Your task to perform on an android device: change the clock display to analog Image 0: 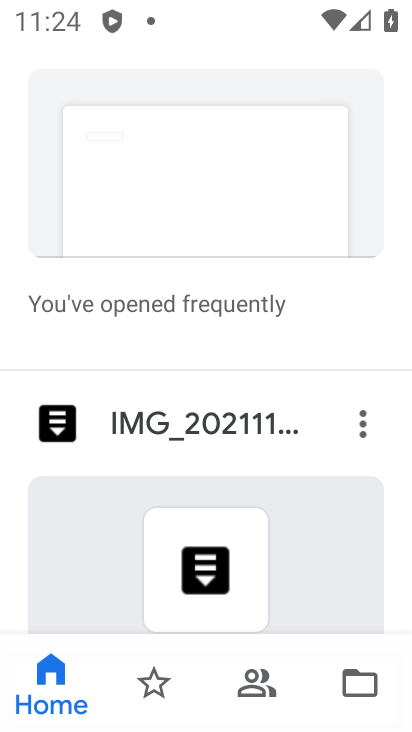
Step 0: press home button
Your task to perform on an android device: change the clock display to analog Image 1: 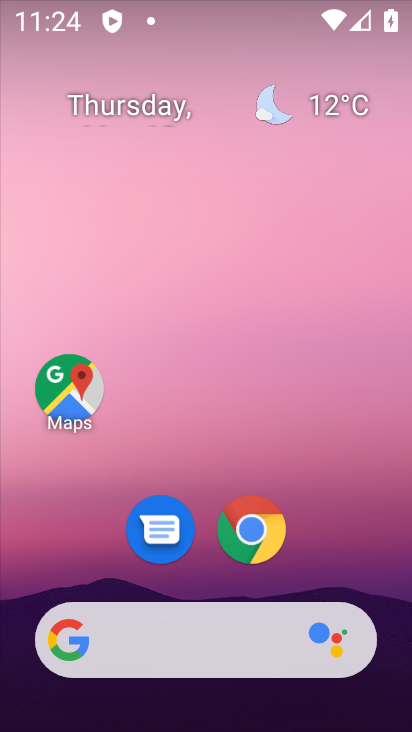
Step 1: drag from (328, 501) to (324, 287)
Your task to perform on an android device: change the clock display to analog Image 2: 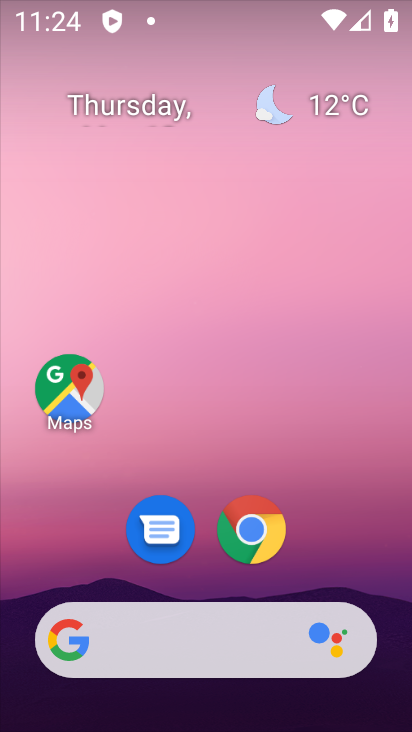
Step 2: drag from (329, 527) to (316, 245)
Your task to perform on an android device: change the clock display to analog Image 3: 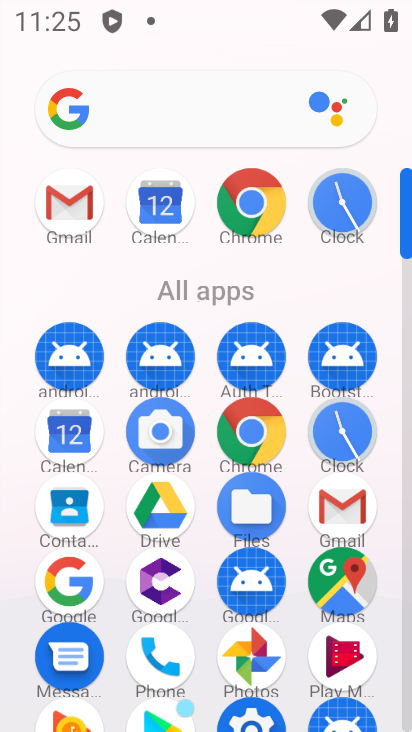
Step 3: click (345, 436)
Your task to perform on an android device: change the clock display to analog Image 4: 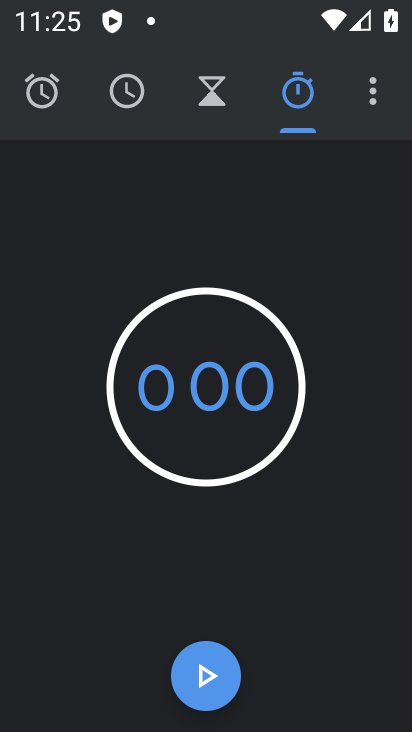
Step 4: click (360, 85)
Your task to perform on an android device: change the clock display to analog Image 5: 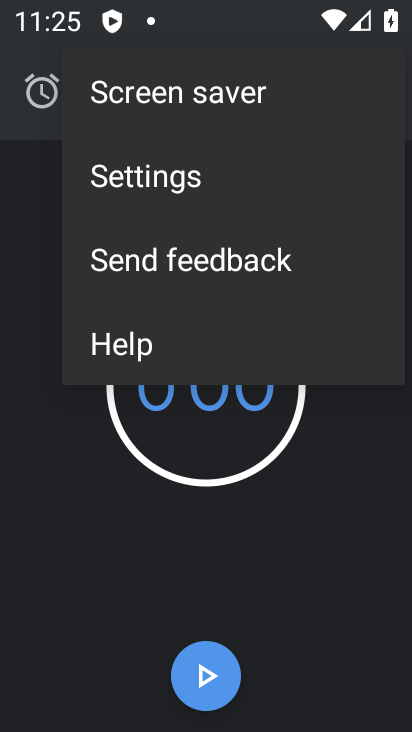
Step 5: click (173, 156)
Your task to perform on an android device: change the clock display to analog Image 6: 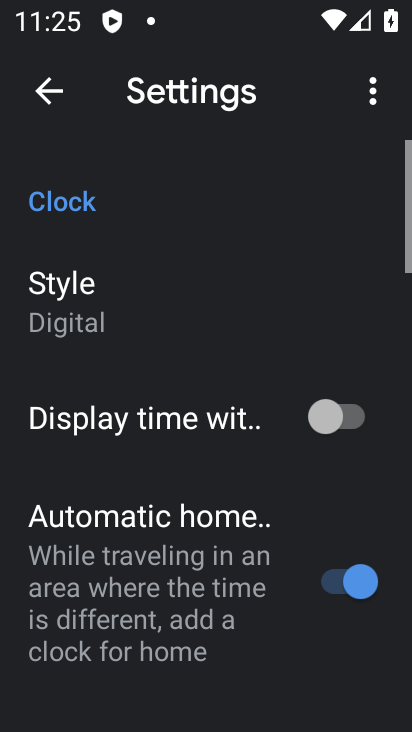
Step 6: click (94, 310)
Your task to perform on an android device: change the clock display to analog Image 7: 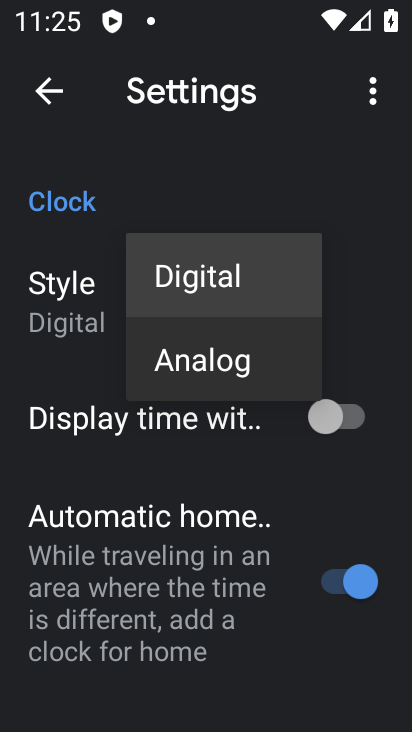
Step 7: click (215, 352)
Your task to perform on an android device: change the clock display to analog Image 8: 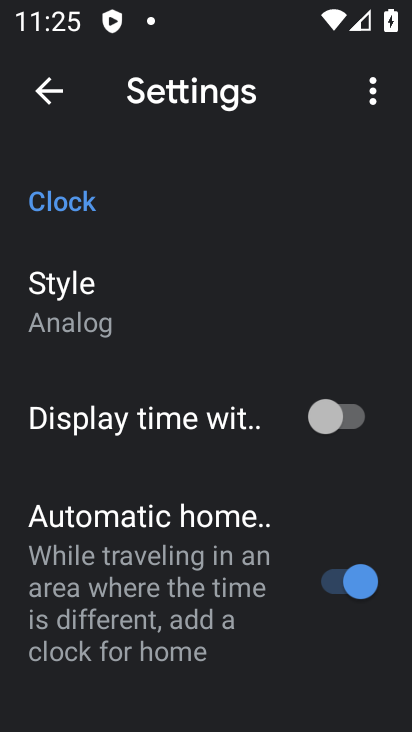
Step 8: task complete